Your task to perform on an android device: Open the web browser Image 0: 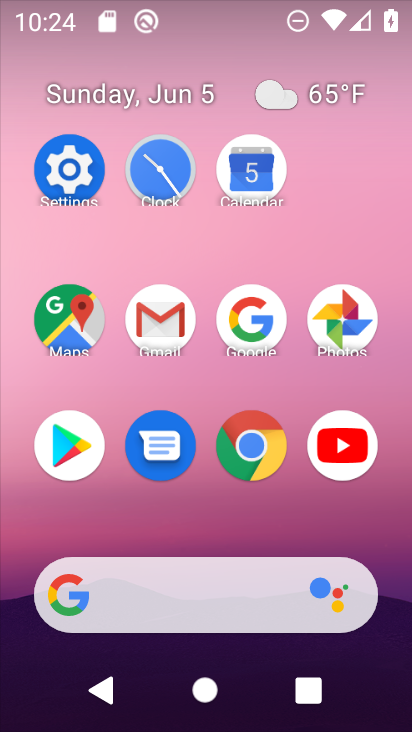
Step 0: click (260, 443)
Your task to perform on an android device: Open the web browser Image 1: 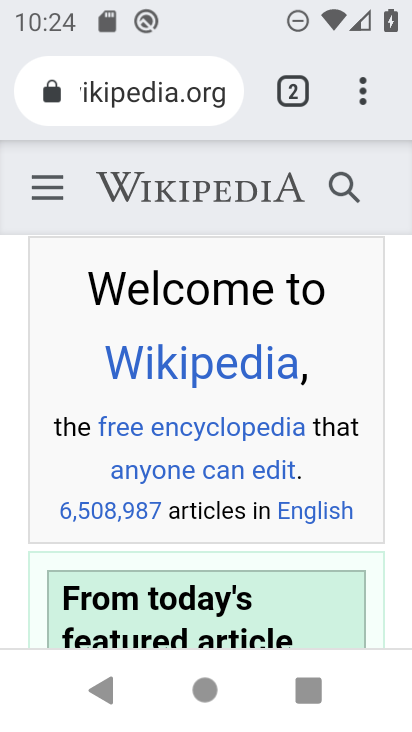
Step 1: task complete